Your task to perform on an android device: create a new album in the google photos Image 0: 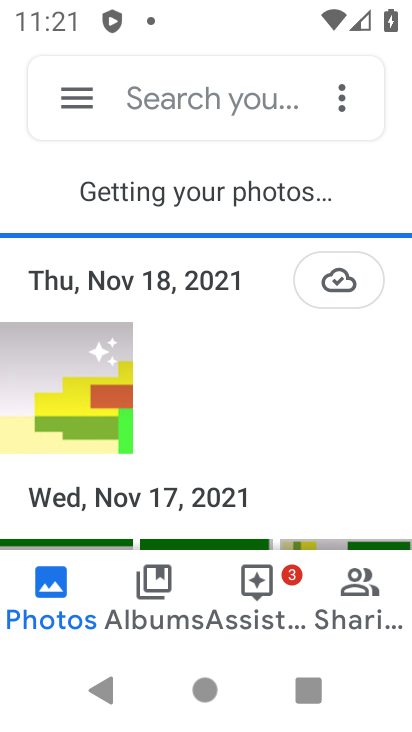
Step 0: press home button
Your task to perform on an android device: create a new album in the google photos Image 1: 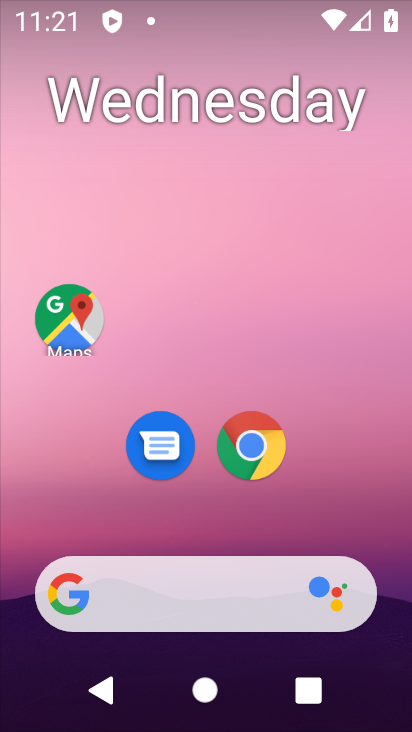
Step 1: drag from (91, 493) to (115, 247)
Your task to perform on an android device: create a new album in the google photos Image 2: 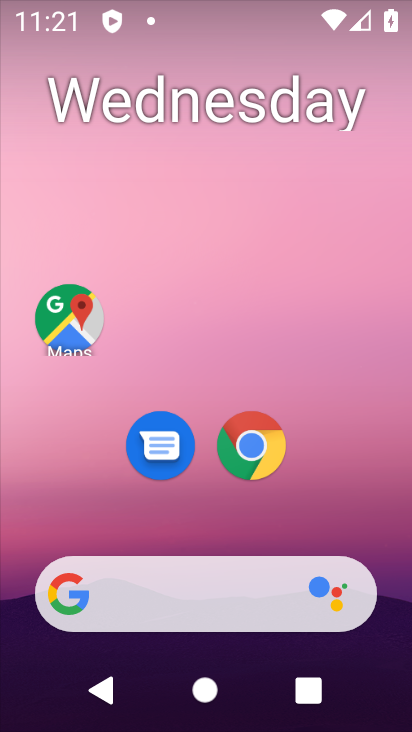
Step 2: drag from (341, 541) to (205, 1)
Your task to perform on an android device: create a new album in the google photos Image 3: 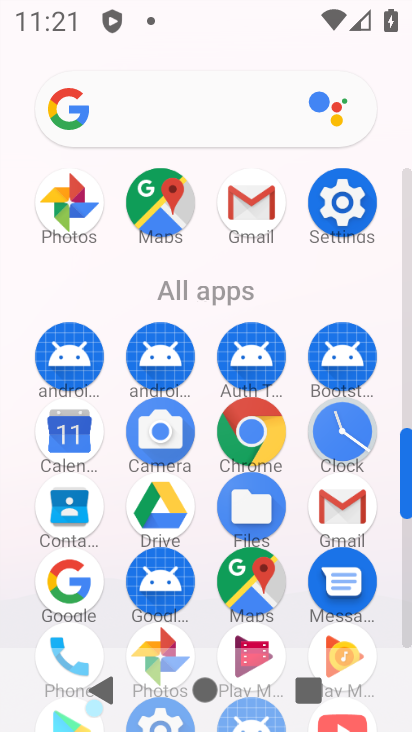
Step 3: click (153, 652)
Your task to perform on an android device: create a new album in the google photos Image 4: 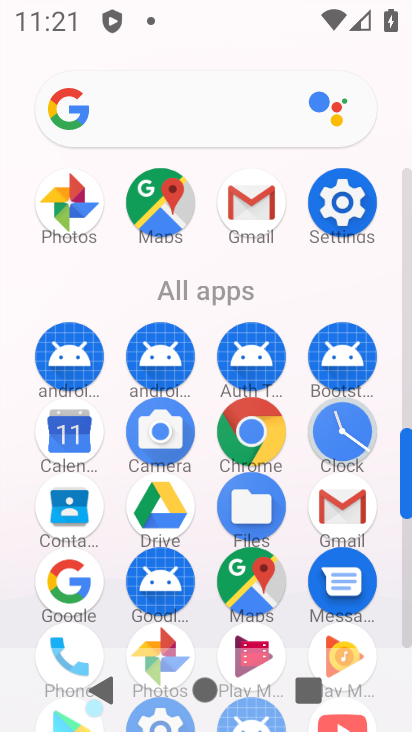
Step 4: drag from (186, 598) to (184, 292)
Your task to perform on an android device: create a new album in the google photos Image 5: 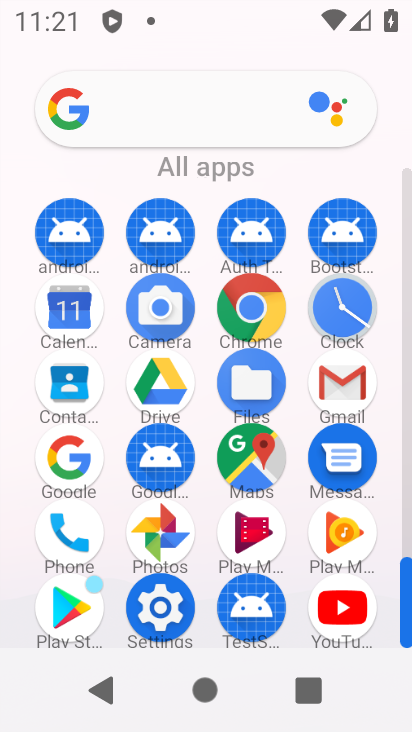
Step 5: click (157, 527)
Your task to perform on an android device: create a new album in the google photos Image 6: 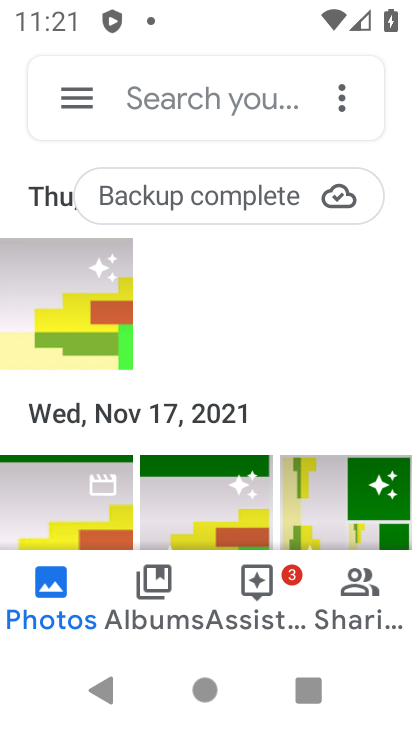
Step 6: click (147, 581)
Your task to perform on an android device: create a new album in the google photos Image 7: 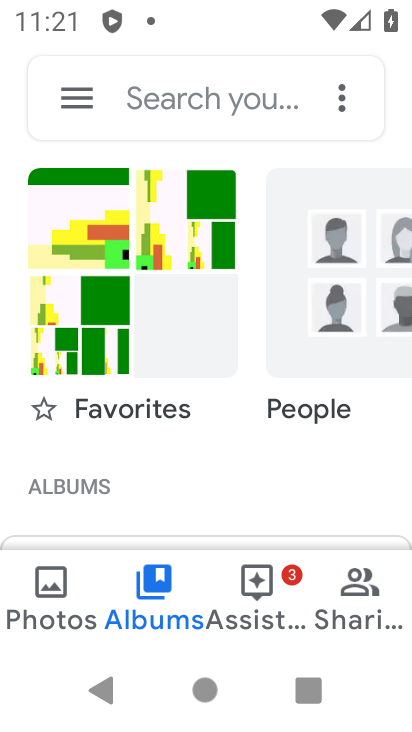
Step 7: drag from (213, 476) to (132, 170)
Your task to perform on an android device: create a new album in the google photos Image 8: 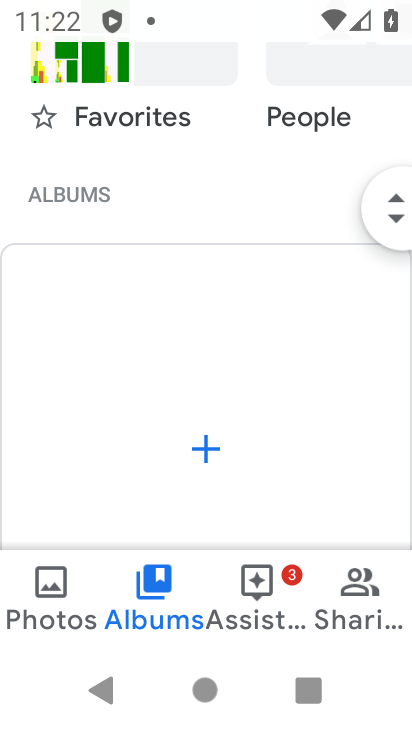
Step 8: click (198, 440)
Your task to perform on an android device: create a new album in the google photos Image 9: 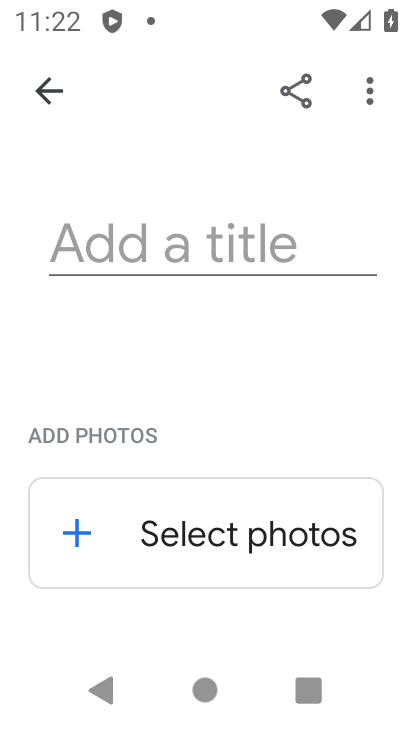
Step 9: click (162, 242)
Your task to perform on an android device: create a new album in the google photos Image 10: 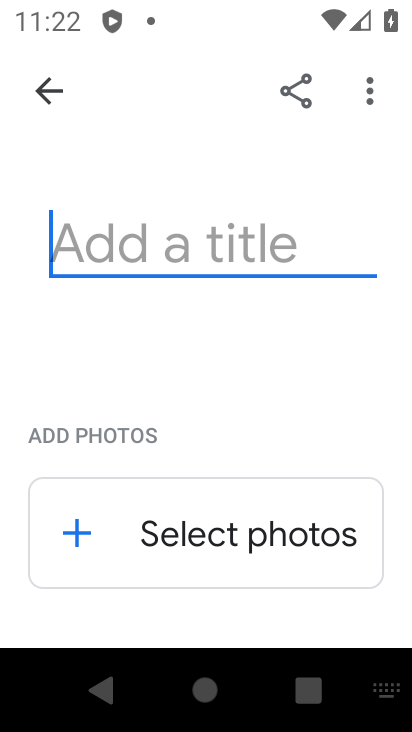
Step 10: type "wfsfsf"
Your task to perform on an android device: create a new album in the google photos Image 11: 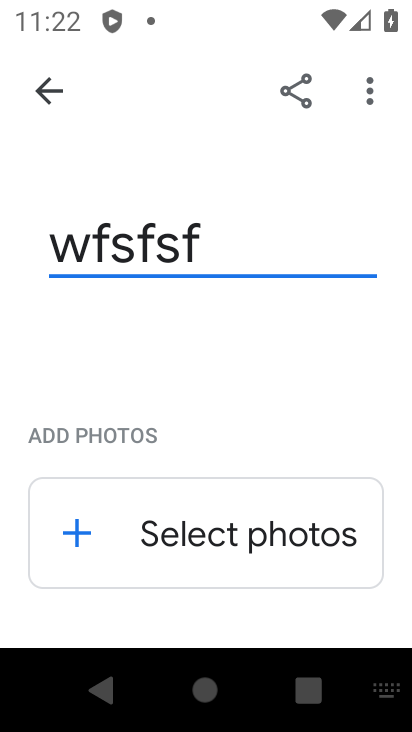
Step 11: click (220, 538)
Your task to perform on an android device: create a new album in the google photos Image 12: 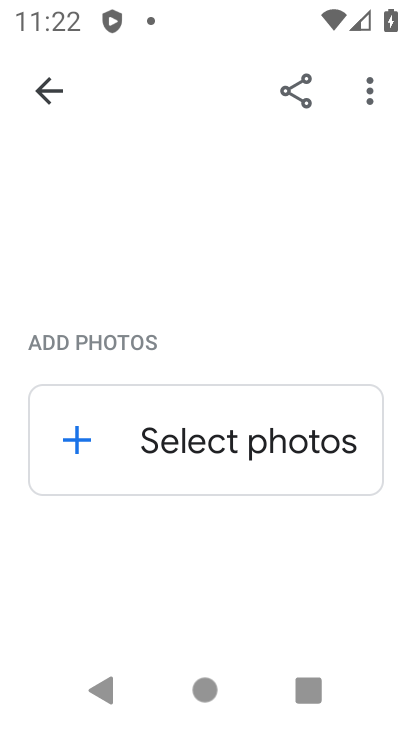
Step 12: click (241, 441)
Your task to perform on an android device: create a new album in the google photos Image 13: 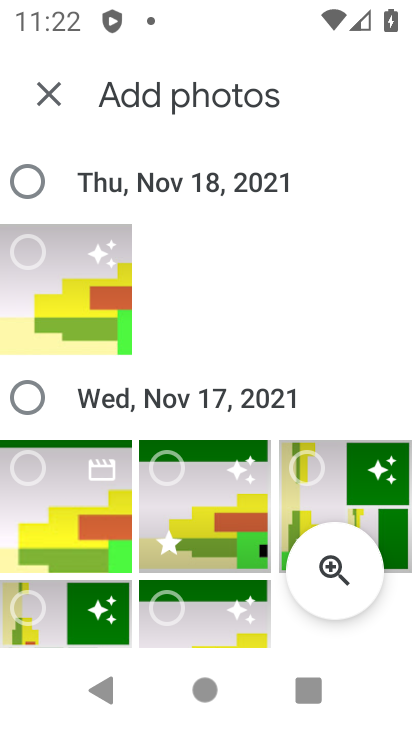
Step 13: click (170, 485)
Your task to perform on an android device: create a new album in the google photos Image 14: 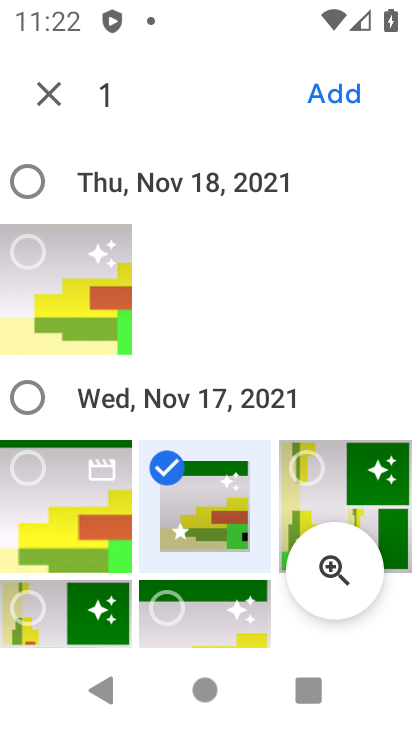
Step 14: click (31, 466)
Your task to perform on an android device: create a new album in the google photos Image 15: 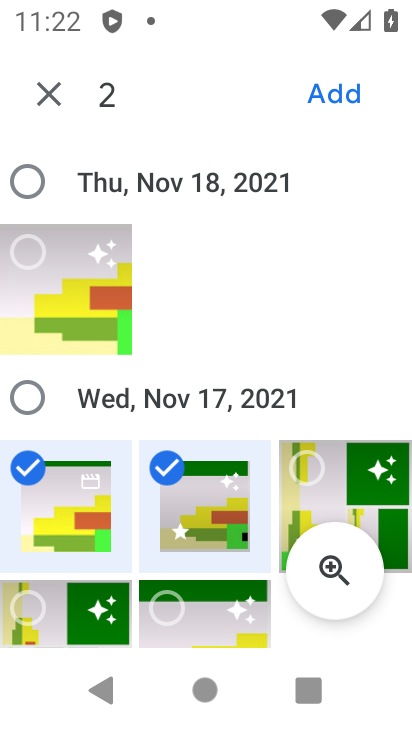
Step 15: click (166, 605)
Your task to perform on an android device: create a new album in the google photos Image 16: 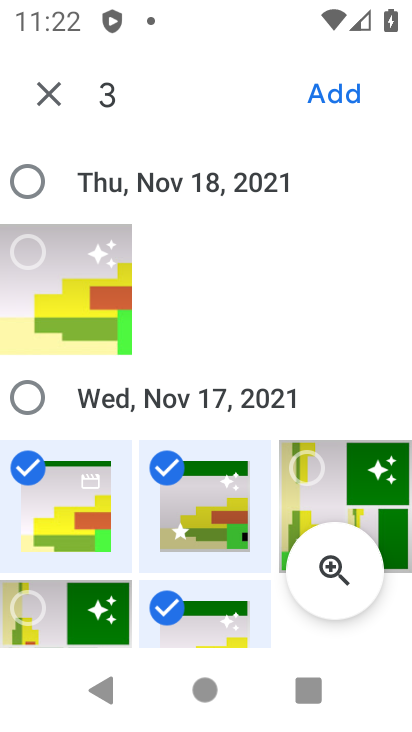
Step 16: click (334, 88)
Your task to perform on an android device: create a new album in the google photos Image 17: 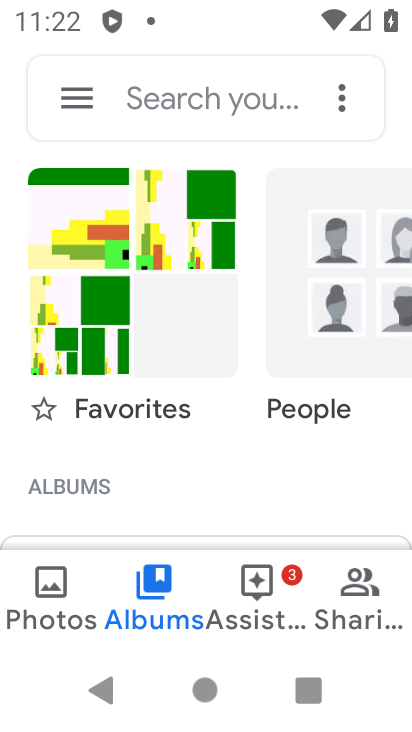
Step 17: task complete